Your task to perform on an android device: Go to Yahoo.com Image 0: 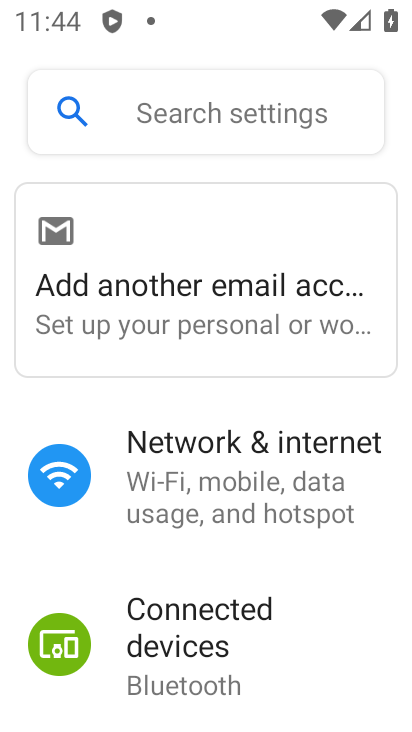
Step 0: press back button
Your task to perform on an android device: Go to Yahoo.com Image 1: 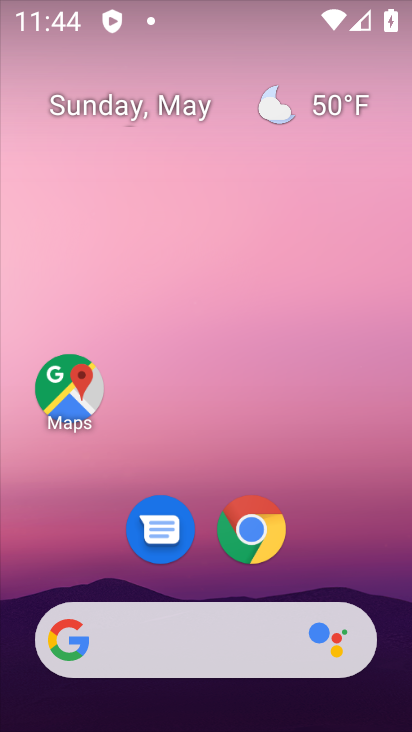
Step 1: click (270, 543)
Your task to perform on an android device: Go to Yahoo.com Image 2: 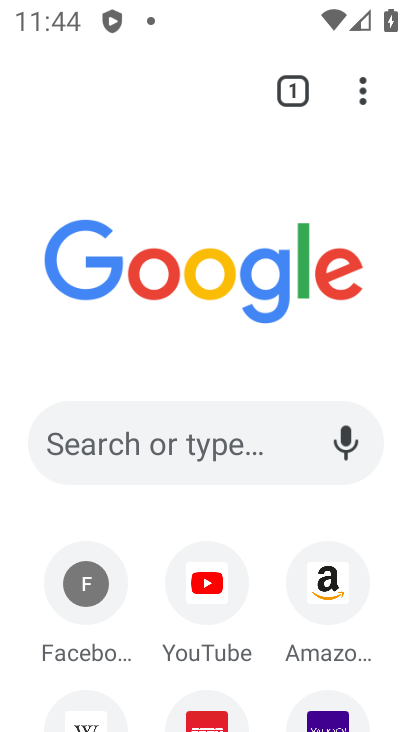
Step 2: click (313, 716)
Your task to perform on an android device: Go to Yahoo.com Image 3: 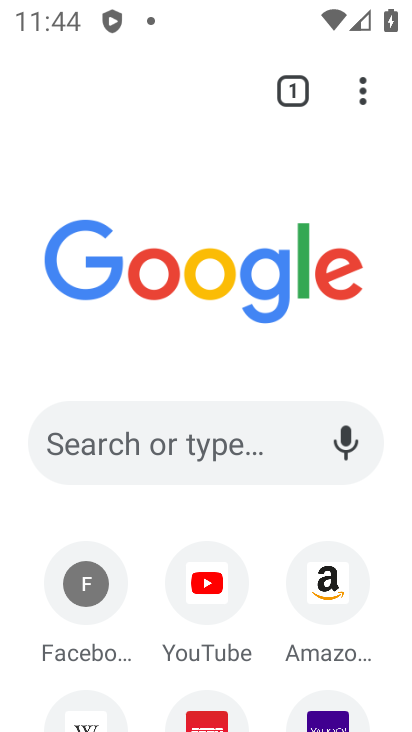
Step 3: click (313, 716)
Your task to perform on an android device: Go to Yahoo.com Image 4: 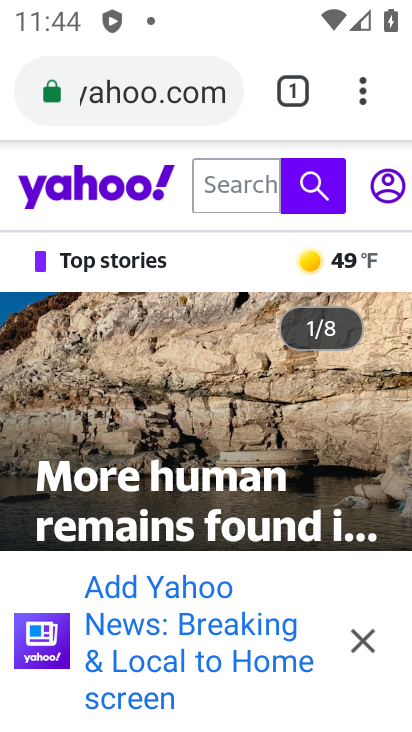
Step 4: click (381, 627)
Your task to perform on an android device: Go to Yahoo.com Image 5: 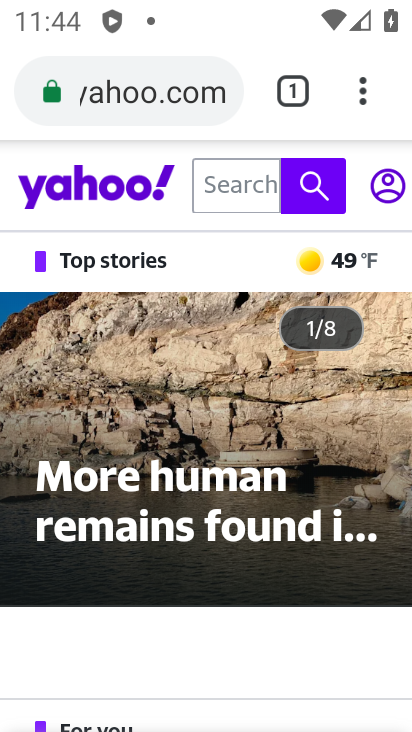
Step 5: task complete